Your task to perform on an android device: turn on sleep mode Image 0: 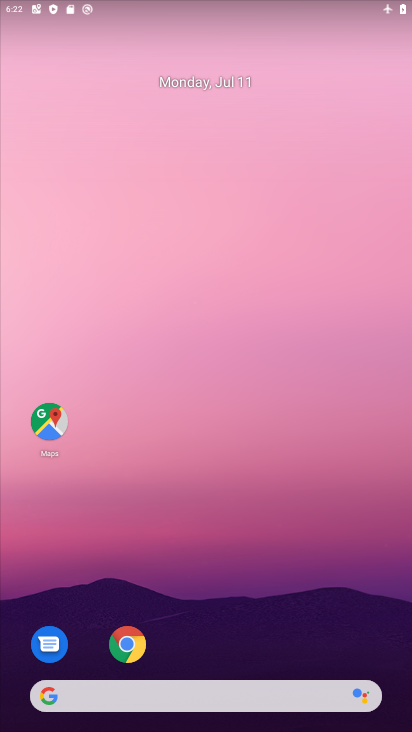
Step 0: drag from (271, 687) to (304, 19)
Your task to perform on an android device: turn on sleep mode Image 1: 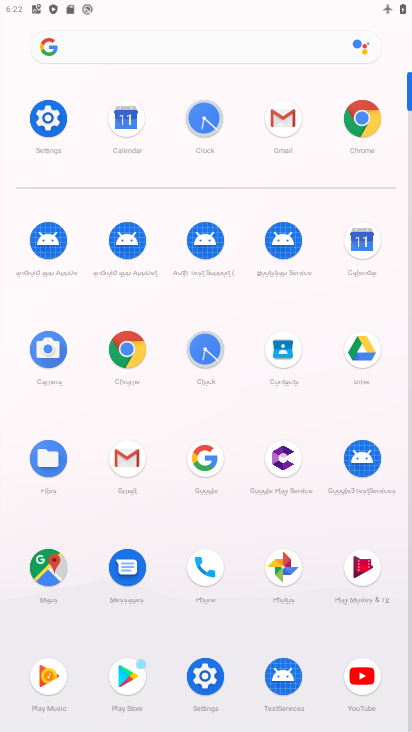
Step 1: click (58, 118)
Your task to perform on an android device: turn on sleep mode Image 2: 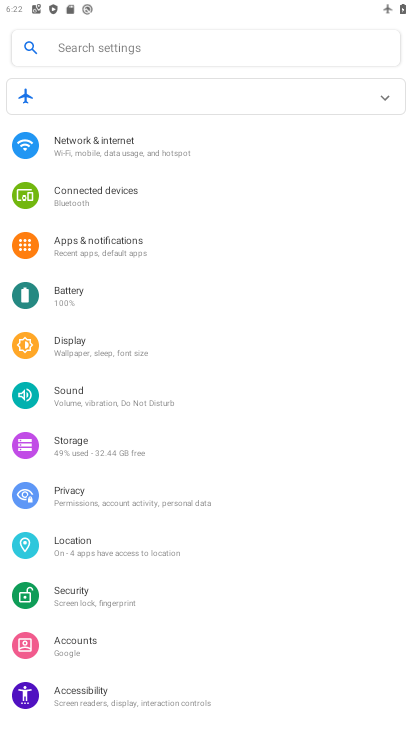
Step 2: click (85, 348)
Your task to perform on an android device: turn on sleep mode Image 3: 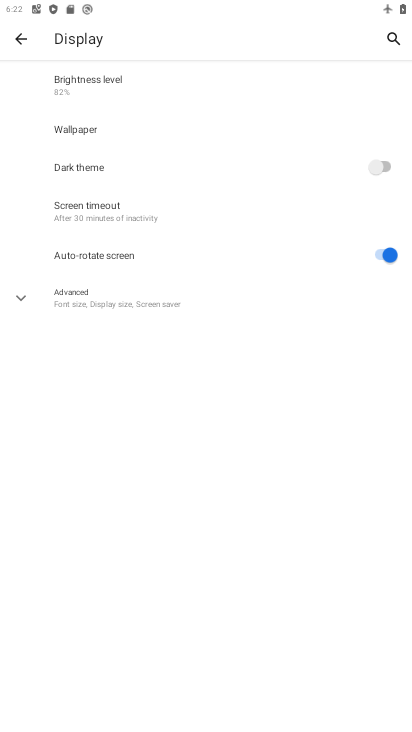
Step 3: task complete